Your task to perform on an android device: turn off sleep mode Image 0: 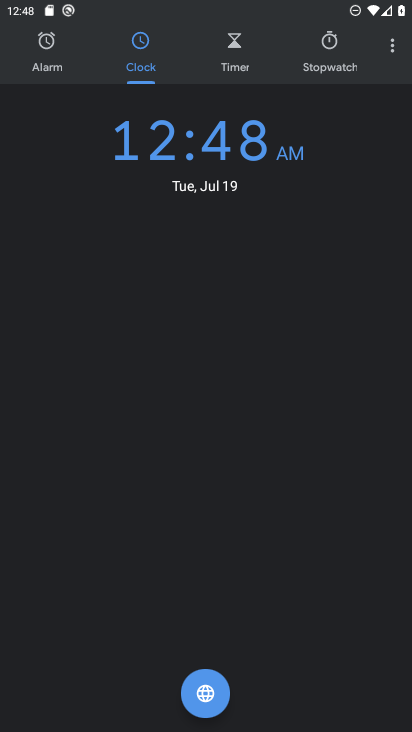
Step 0: press home button
Your task to perform on an android device: turn off sleep mode Image 1: 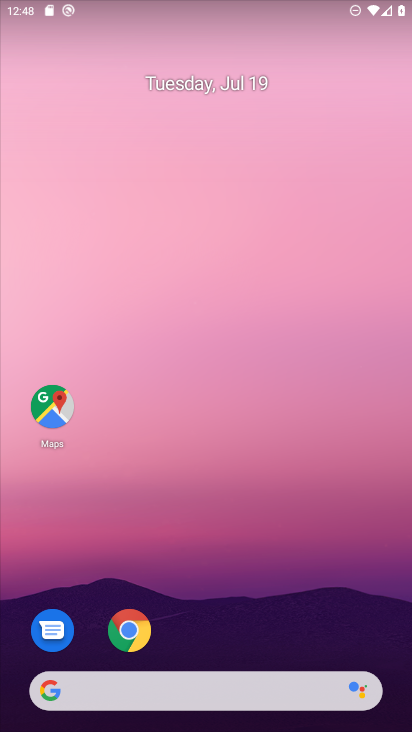
Step 1: drag from (214, 657) to (319, 57)
Your task to perform on an android device: turn off sleep mode Image 2: 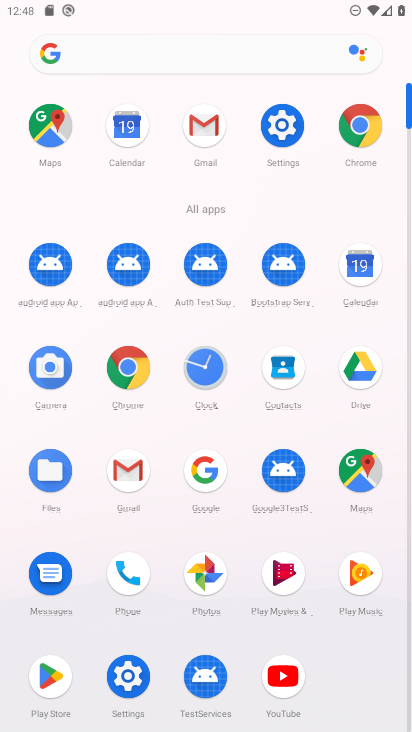
Step 2: click (290, 116)
Your task to perform on an android device: turn off sleep mode Image 3: 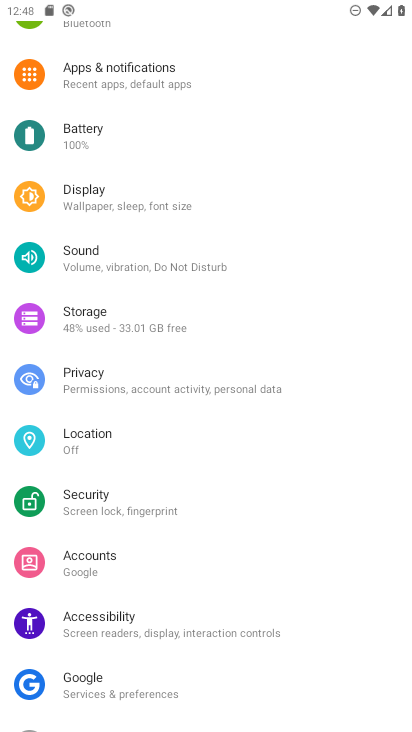
Step 3: click (109, 198)
Your task to perform on an android device: turn off sleep mode Image 4: 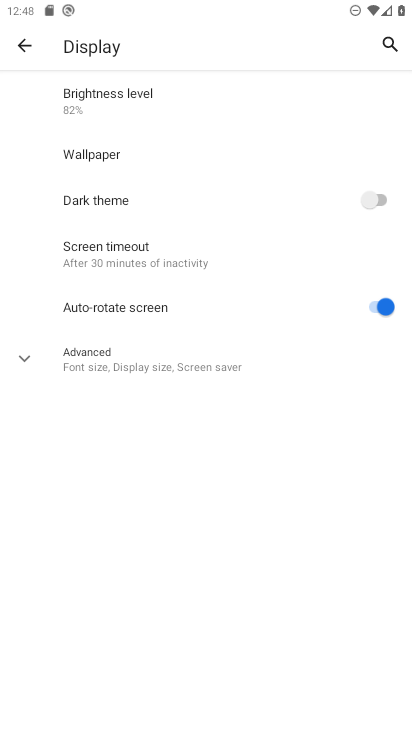
Step 4: task complete